Your task to perform on an android device: turn off location Image 0: 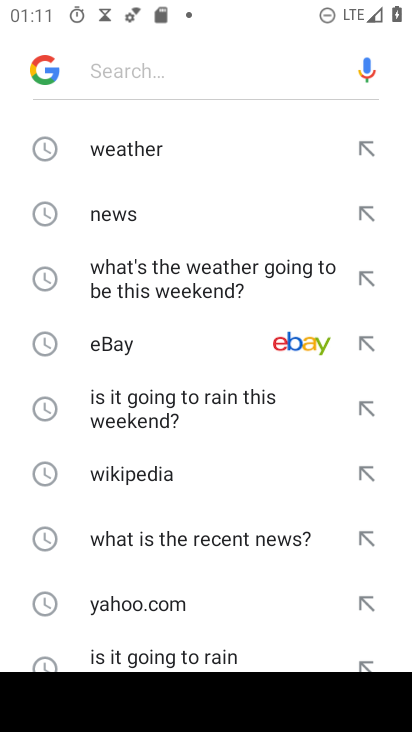
Step 0: press home button
Your task to perform on an android device: turn off location Image 1: 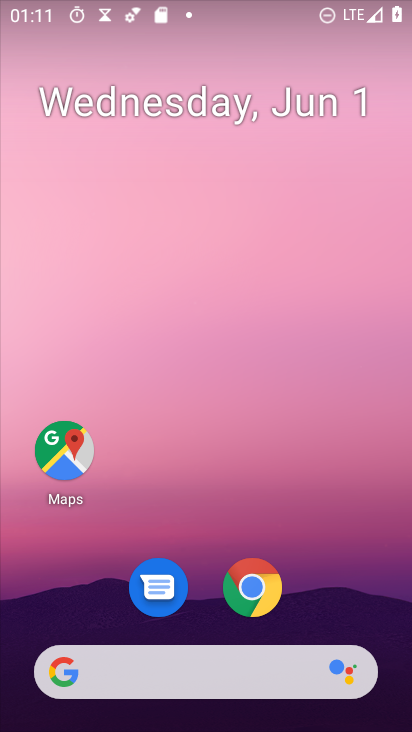
Step 1: drag from (307, 614) to (310, 53)
Your task to perform on an android device: turn off location Image 2: 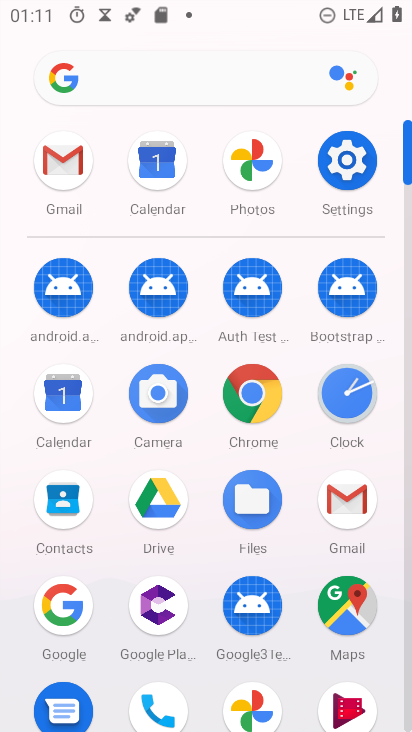
Step 2: click (347, 162)
Your task to perform on an android device: turn off location Image 3: 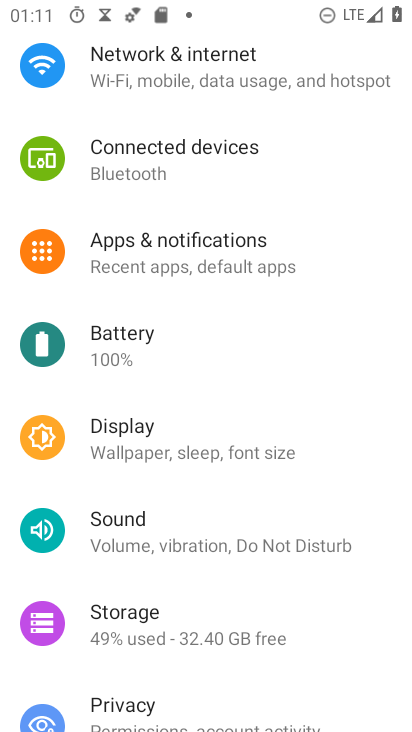
Step 3: drag from (141, 582) to (149, 87)
Your task to perform on an android device: turn off location Image 4: 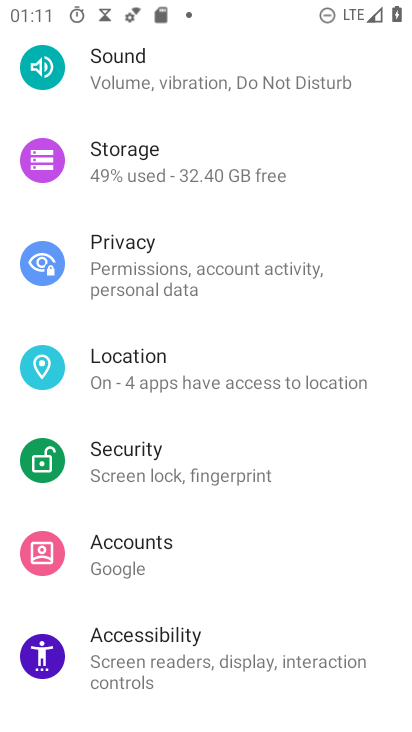
Step 4: click (171, 375)
Your task to perform on an android device: turn off location Image 5: 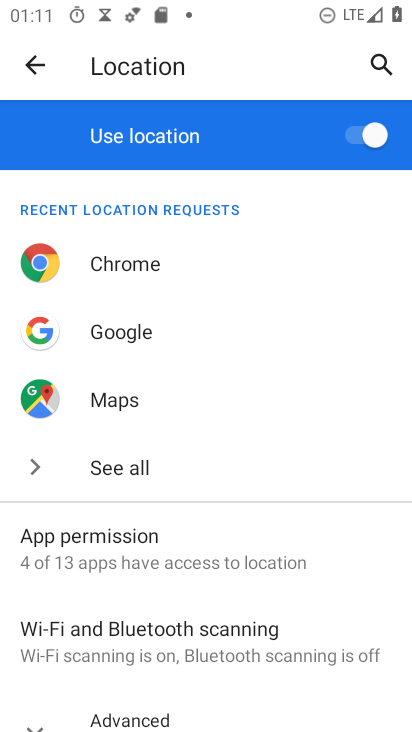
Step 5: click (360, 129)
Your task to perform on an android device: turn off location Image 6: 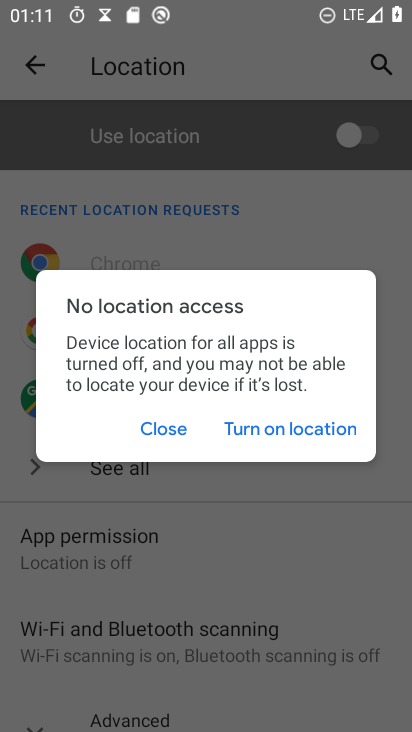
Step 6: task complete